Your task to perform on an android device: Is it going to rain this weekend? Image 0: 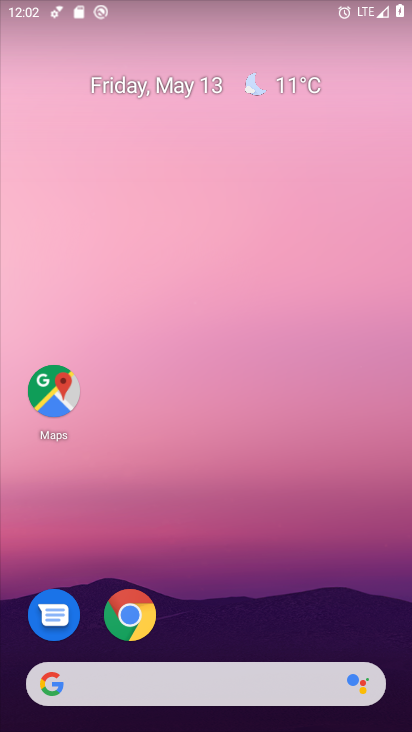
Step 0: click (305, 80)
Your task to perform on an android device: Is it going to rain this weekend? Image 1: 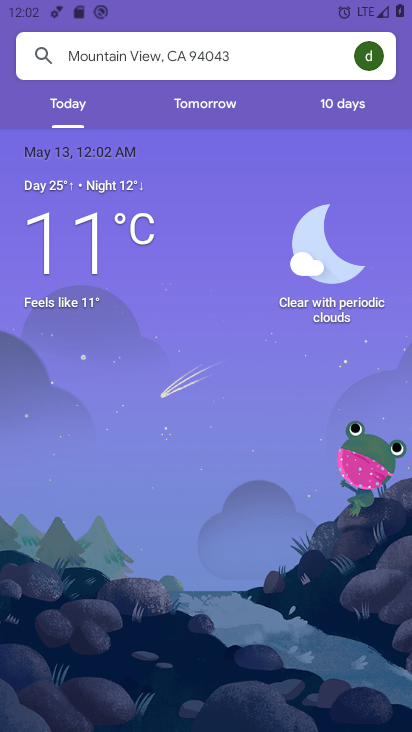
Step 1: click (329, 99)
Your task to perform on an android device: Is it going to rain this weekend? Image 2: 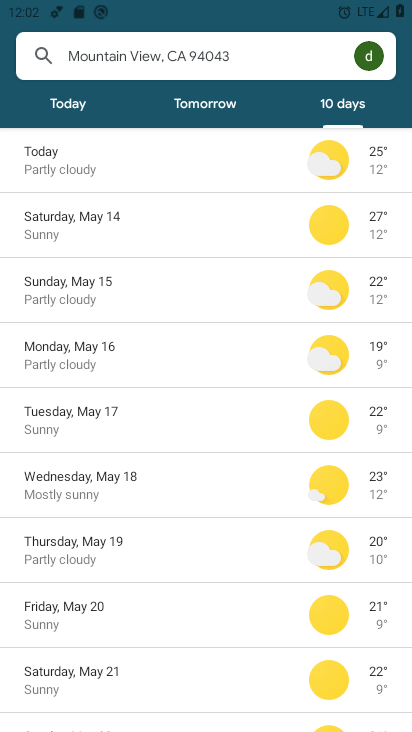
Step 2: click (153, 220)
Your task to perform on an android device: Is it going to rain this weekend? Image 3: 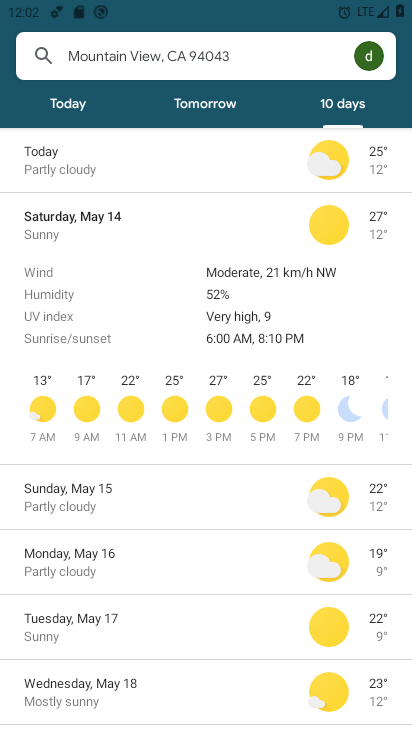
Step 3: task complete